Your task to perform on an android device: turn off smart reply in the gmail app Image 0: 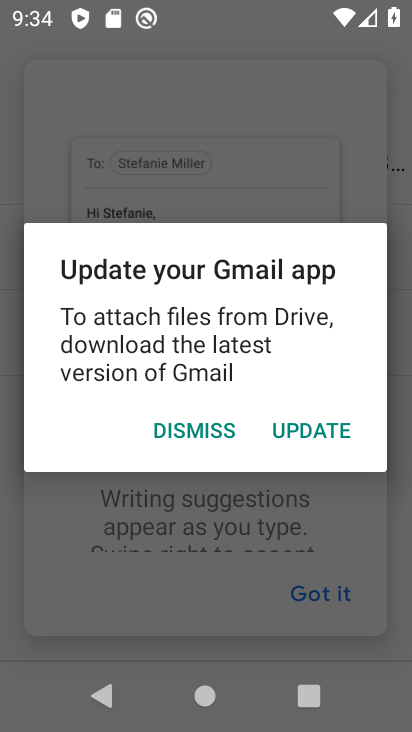
Step 0: click (197, 432)
Your task to perform on an android device: turn off smart reply in the gmail app Image 1: 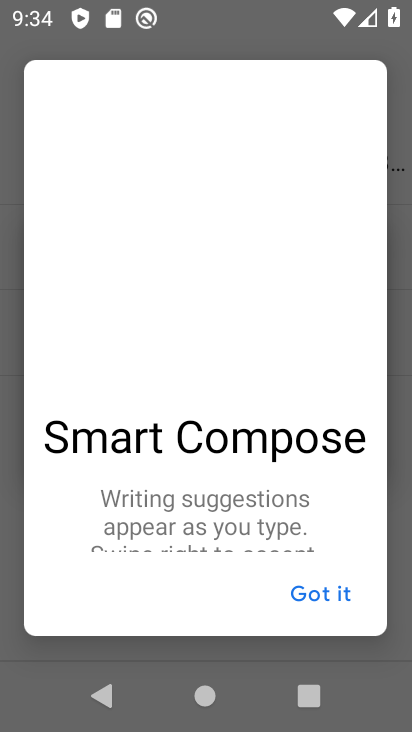
Step 1: press back button
Your task to perform on an android device: turn off smart reply in the gmail app Image 2: 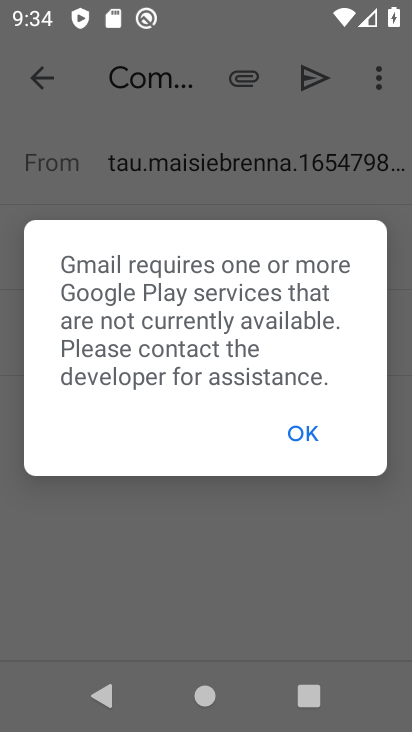
Step 2: press home button
Your task to perform on an android device: turn off smart reply in the gmail app Image 3: 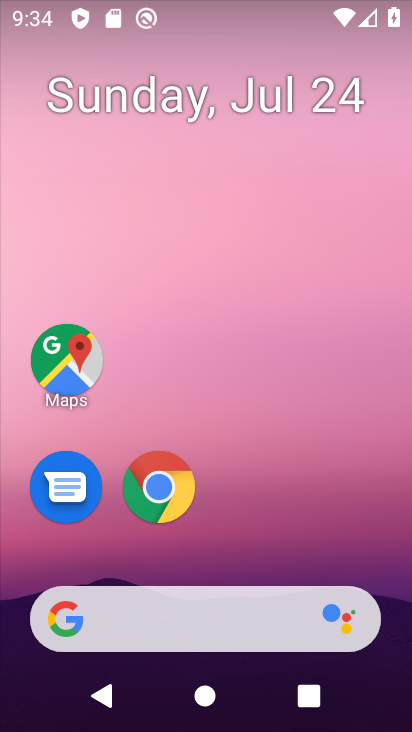
Step 3: drag from (245, 405) to (263, 0)
Your task to perform on an android device: turn off smart reply in the gmail app Image 4: 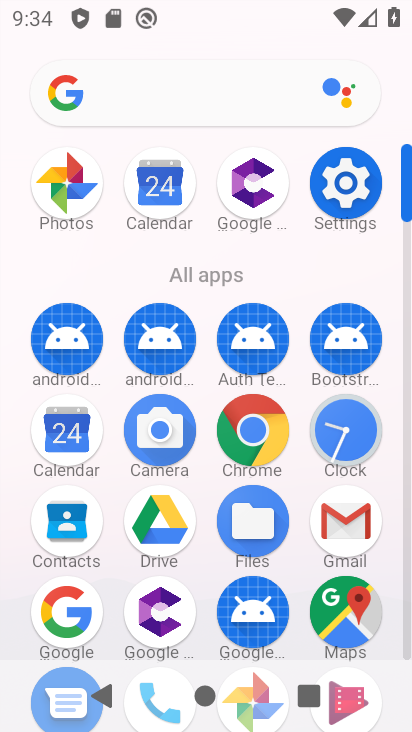
Step 4: click (355, 531)
Your task to perform on an android device: turn off smart reply in the gmail app Image 5: 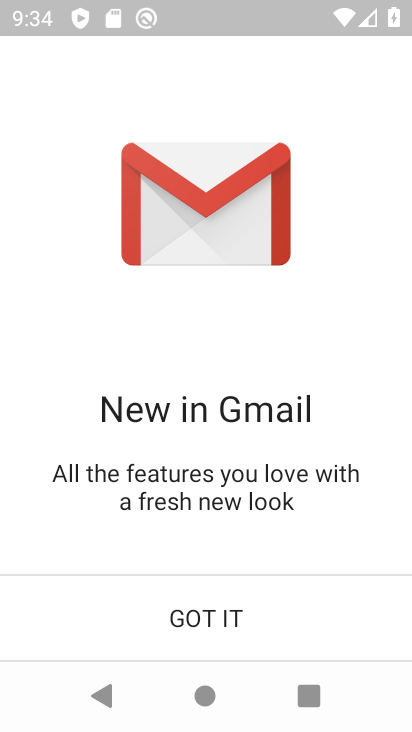
Step 5: click (226, 611)
Your task to perform on an android device: turn off smart reply in the gmail app Image 6: 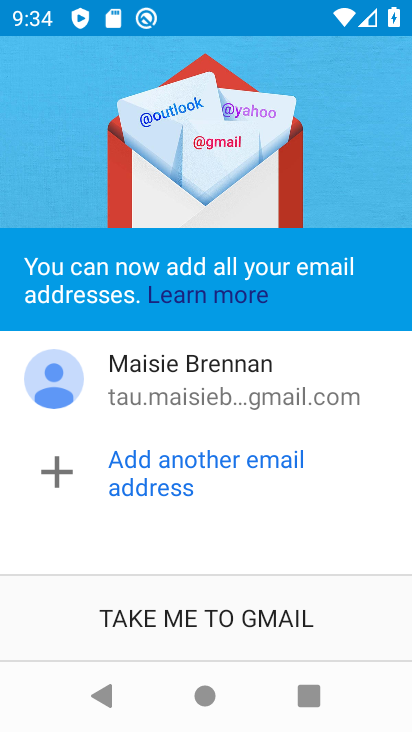
Step 6: click (235, 608)
Your task to perform on an android device: turn off smart reply in the gmail app Image 7: 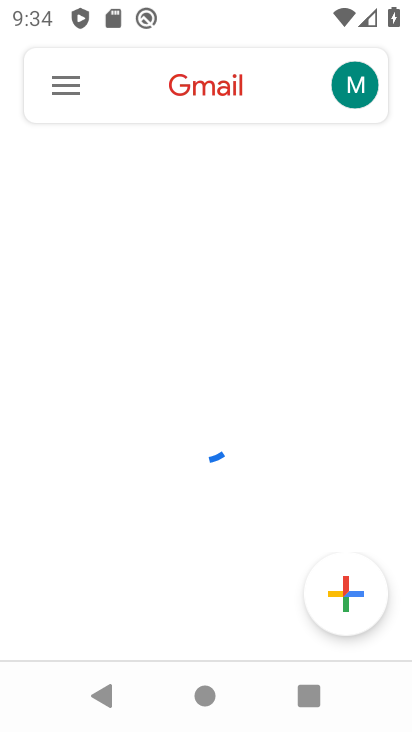
Step 7: click (74, 74)
Your task to perform on an android device: turn off smart reply in the gmail app Image 8: 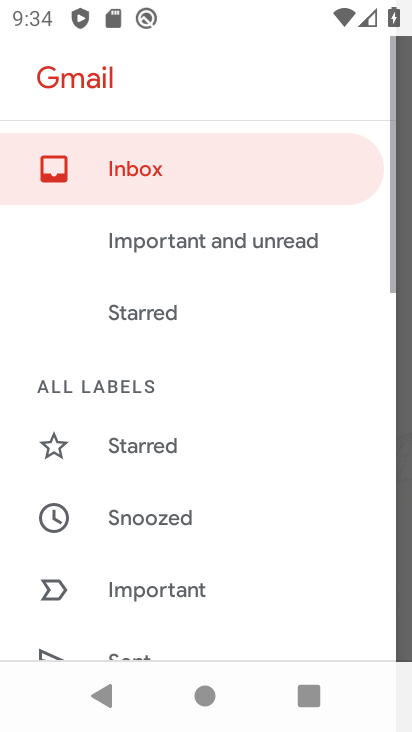
Step 8: click (171, 389)
Your task to perform on an android device: turn off smart reply in the gmail app Image 9: 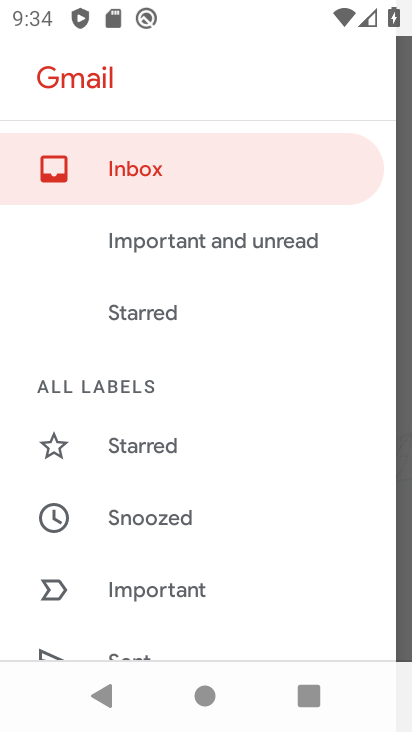
Step 9: drag from (152, 616) to (158, 20)
Your task to perform on an android device: turn off smart reply in the gmail app Image 10: 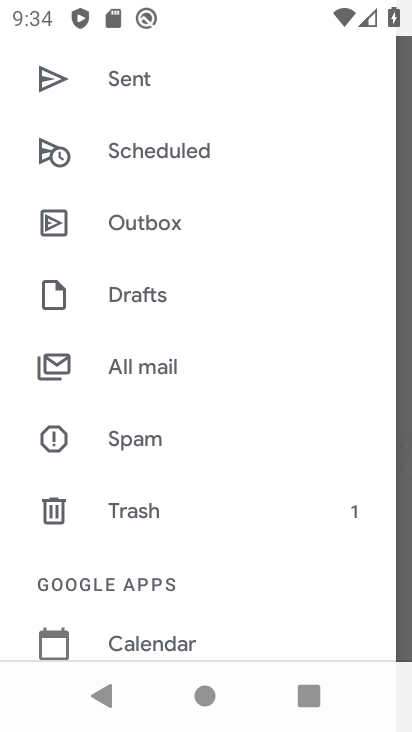
Step 10: drag from (132, 664) to (161, 144)
Your task to perform on an android device: turn off smart reply in the gmail app Image 11: 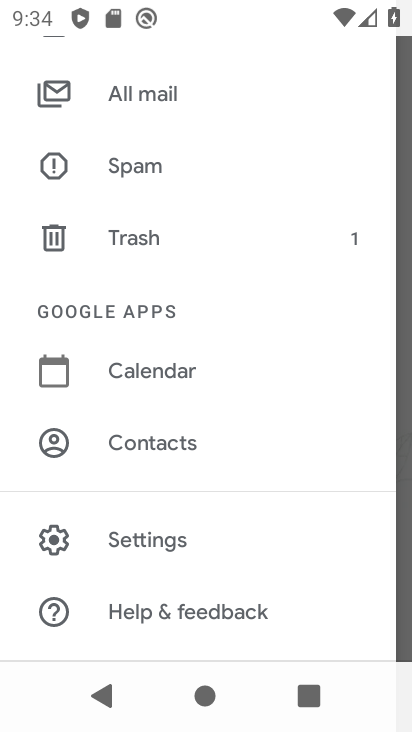
Step 11: click (165, 525)
Your task to perform on an android device: turn off smart reply in the gmail app Image 12: 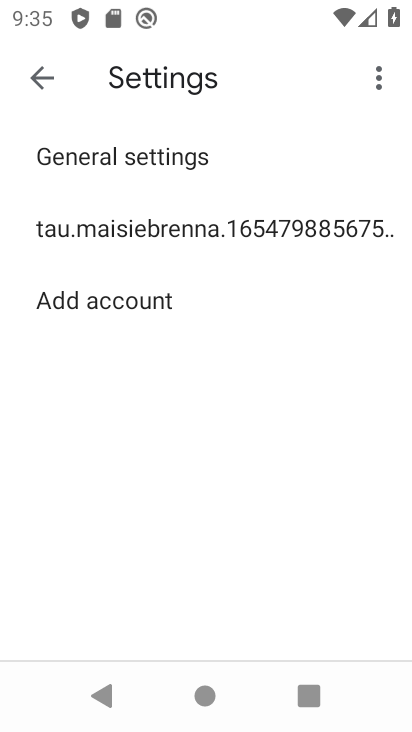
Step 12: click (186, 219)
Your task to perform on an android device: turn off smart reply in the gmail app Image 13: 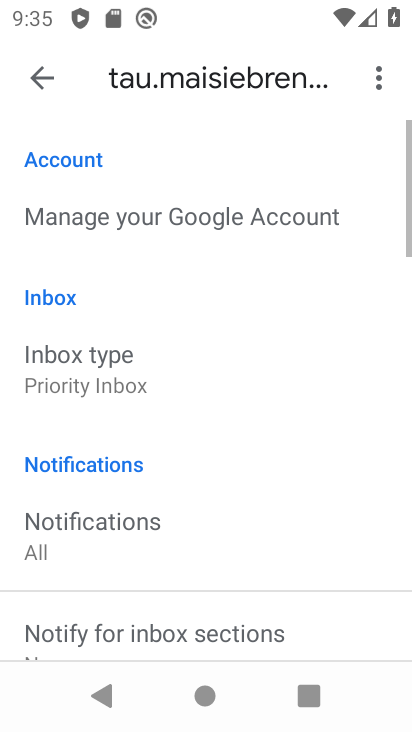
Step 13: drag from (137, 581) to (253, 21)
Your task to perform on an android device: turn off smart reply in the gmail app Image 14: 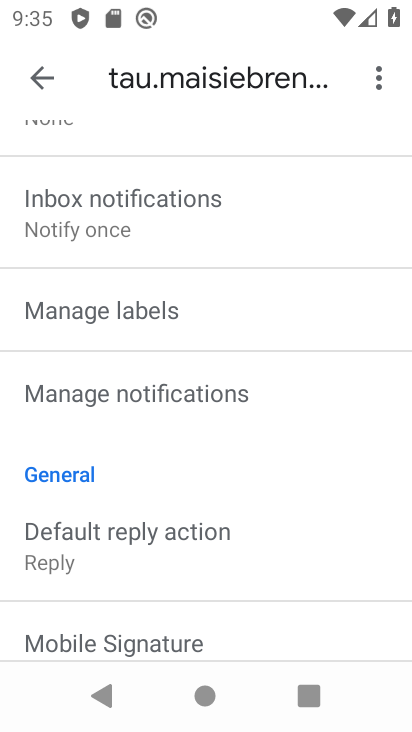
Step 14: drag from (146, 592) to (262, 132)
Your task to perform on an android device: turn off smart reply in the gmail app Image 15: 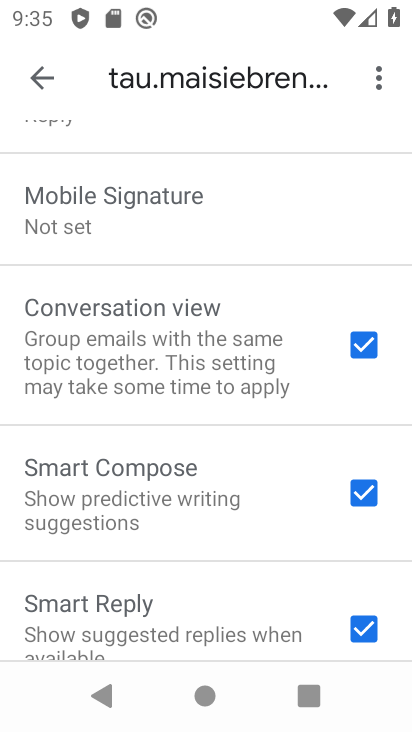
Step 15: click (355, 624)
Your task to perform on an android device: turn off smart reply in the gmail app Image 16: 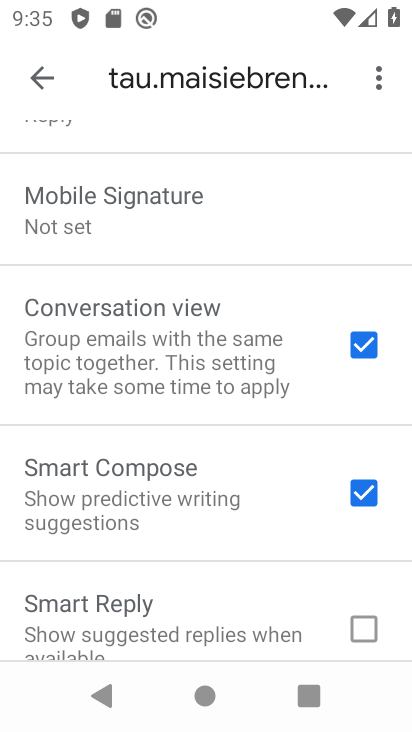
Step 16: task complete